Your task to perform on an android device: delete a single message in the gmail app Image 0: 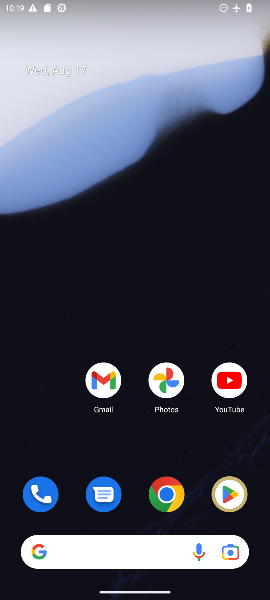
Step 0: drag from (176, 443) to (156, 91)
Your task to perform on an android device: delete a single message in the gmail app Image 1: 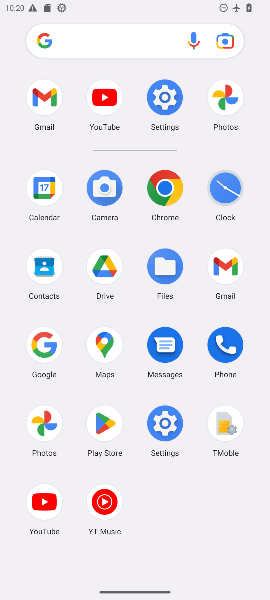
Step 1: click (219, 266)
Your task to perform on an android device: delete a single message in the gmail app Image 2: 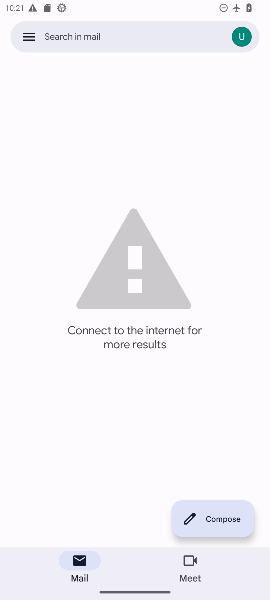
Step 2: task complete